Your task to perform on an android device: Open internet settings Image 0: 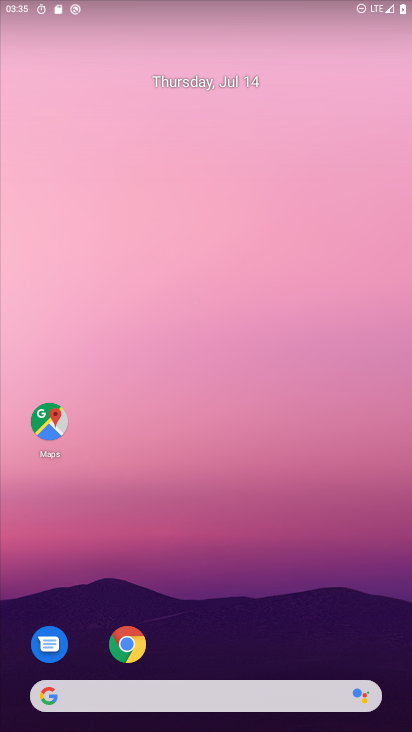
Step 0: drag from (274, 538) to (275, 19)
Your task to perform on an android device: Open internet settings Image 1: 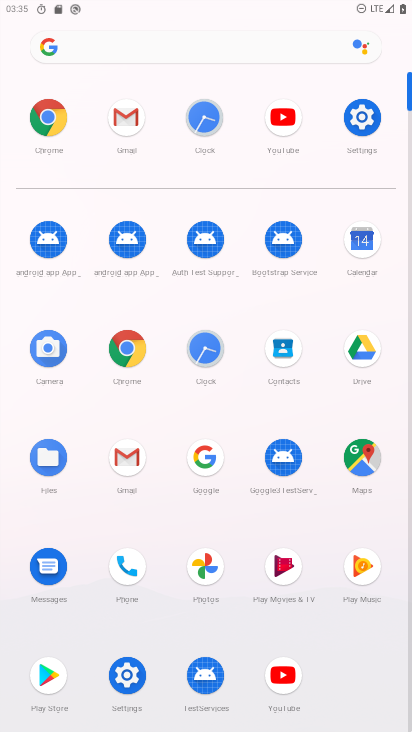
Step 1: click (365, 124)
Your task to perform on an android device: Open internet settings Image 2: 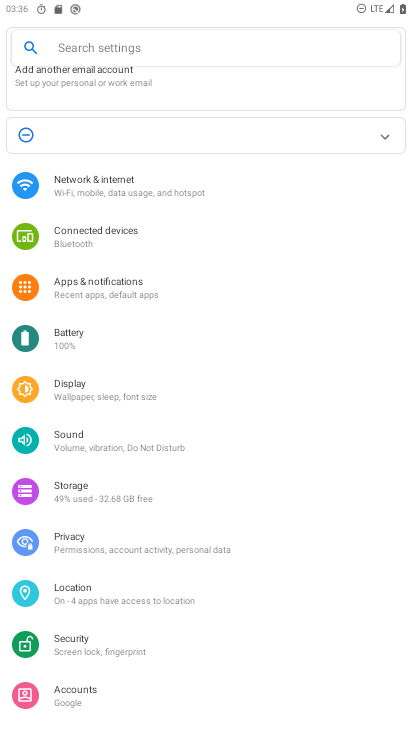
Step 2: click (133, 192)
Your task to perform on an android device: Open internet settings Image 3: 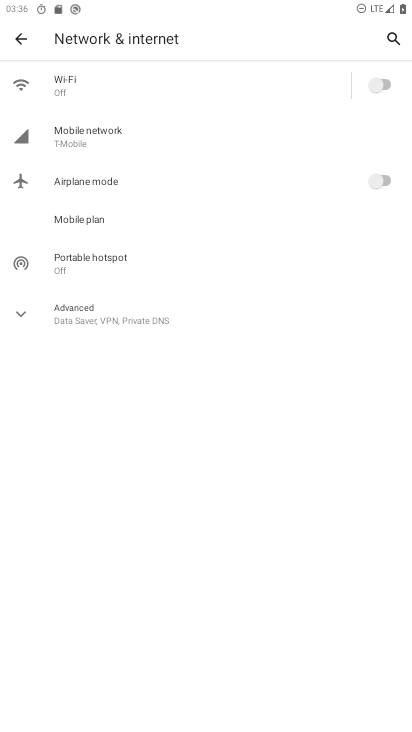
Step 3: click (95, 321)
Your task to perform on an android device: Open internet settings Image 4: 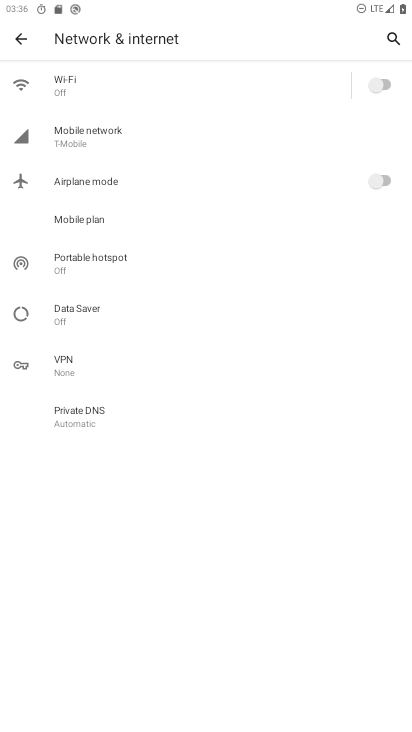
Step 4: task complete